Your task to perform on an android device: visit the assistant section in the google photos Image 0: 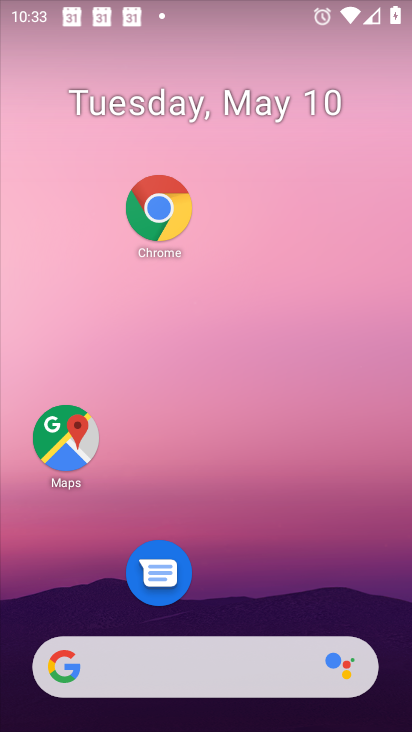
Step 0: drag from (274, 699) to (311, 257)
Your task to perform on an android device: visit the assistant section in the google photos Image 1: 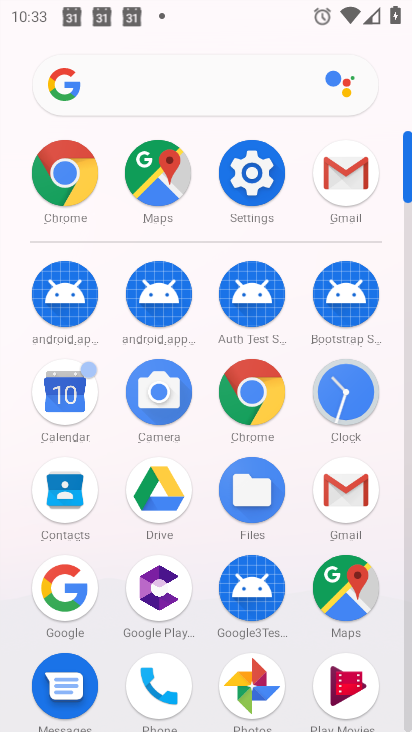
Step 1: click (248, 678)
Your task to perform on an android device: visit the assistant section in the google photos Image 2: 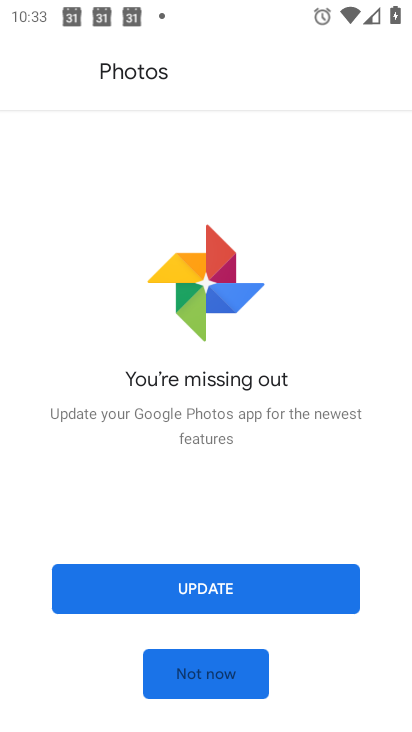
Step 2: click (214, 665)
Your task to perform on an android device: visit the assistant section in the google photos Image 3: 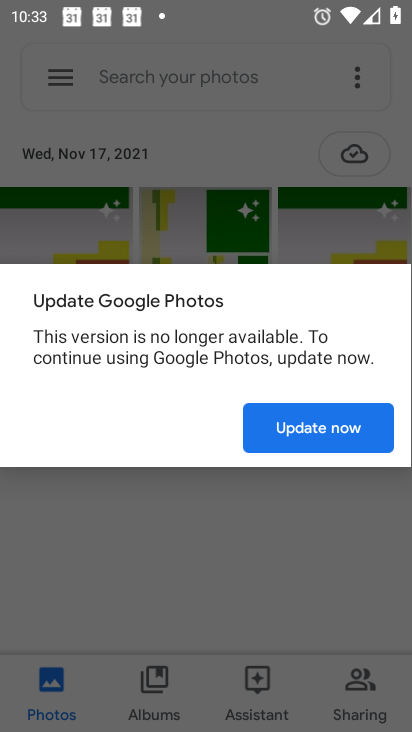
Step 3: click (333, 435)
Your task to perform on an android device: visit the assistant section in the google photos Image 4: 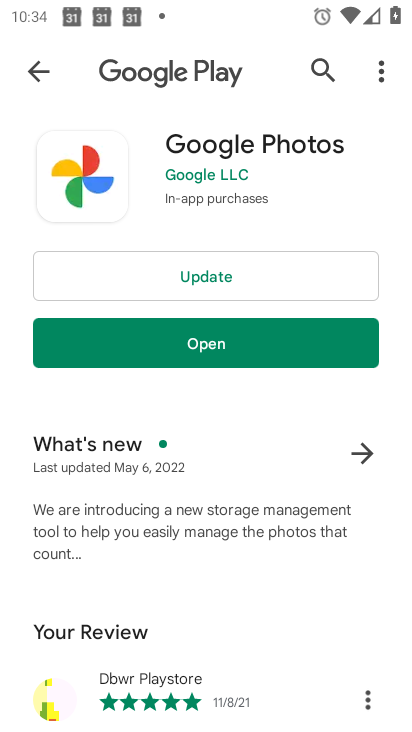
Step 4: click (192, 335)
Your task to perform on an android device: visit the assistant section in the google photos Image 5: 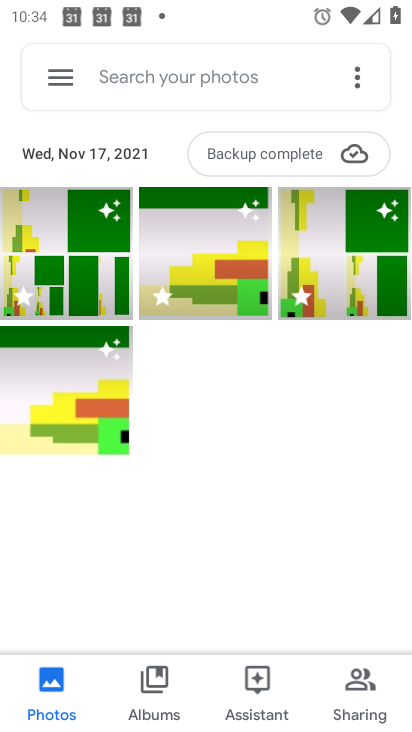
Step 5: click (264, 708)
Your task to perform on an android device: visit the assistant section in the google photos Image 6: 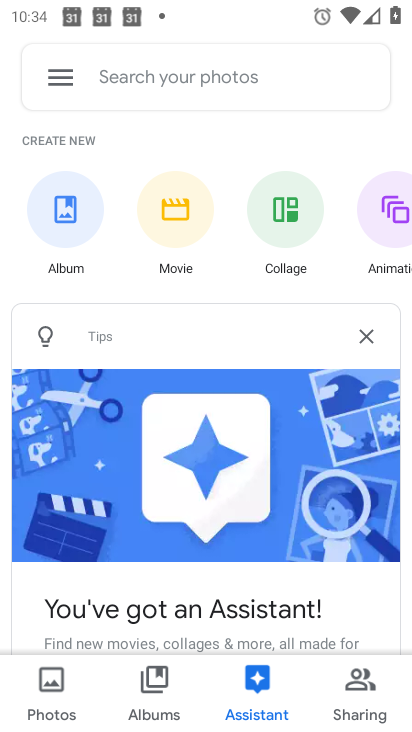
Step 6: task complete